Your task to perform on an android device: Go to ESPN.com Image 0: 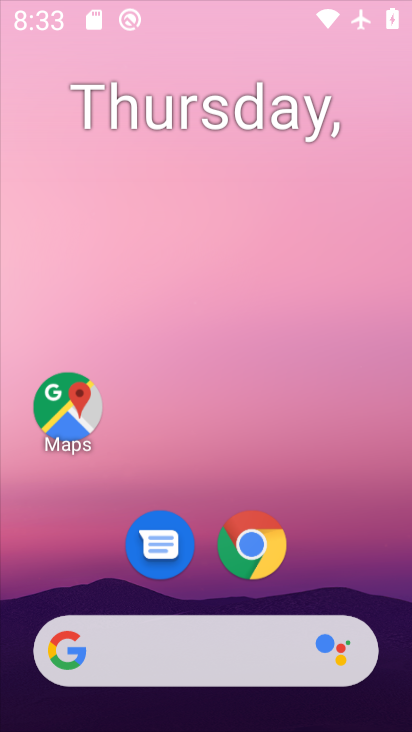
Step 0: click (311, 107)
Your task to perform on an android device: Go to ESPN.com Image 1: 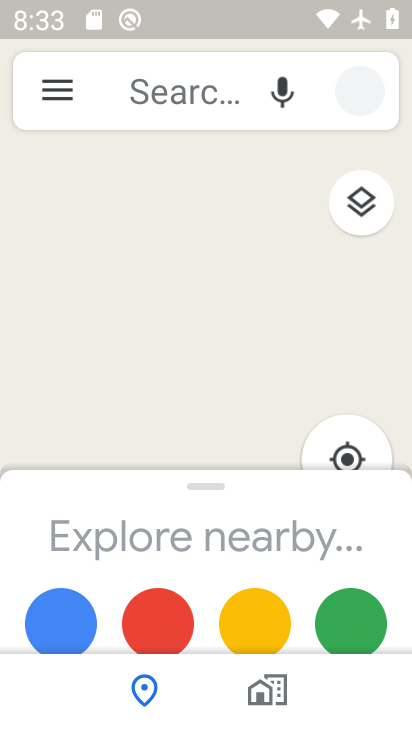
Step 1: press home button
Your task to perform on an android device: Go to ESPN.com Image 2: 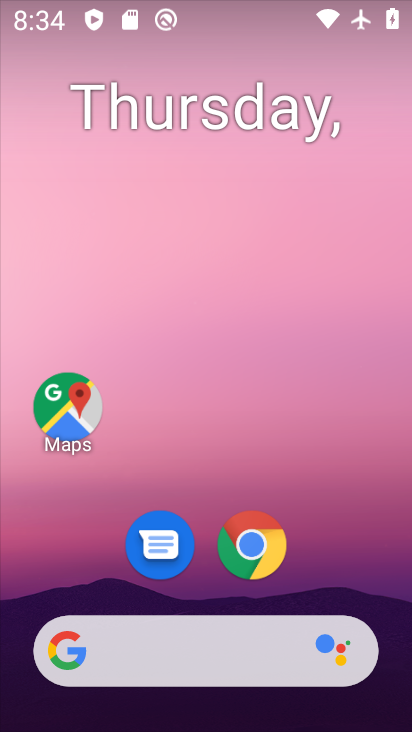
Step 2: drag from (312, 575) to (292, 192)
Your task to perform on an android device: Go to ESPN.com Image 3: 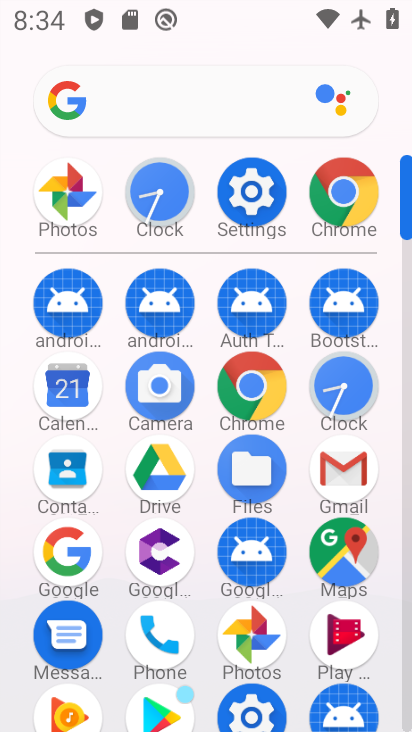
Step 3: click (342, 194)
Your task to perform on an android device: Go to ESPN.com Image 4: 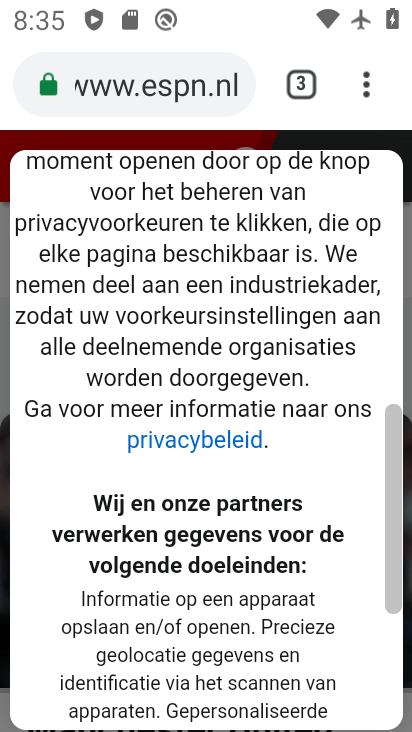
Step 4: task complete